Your task to perform on an android device: toggle wifi Image 0: 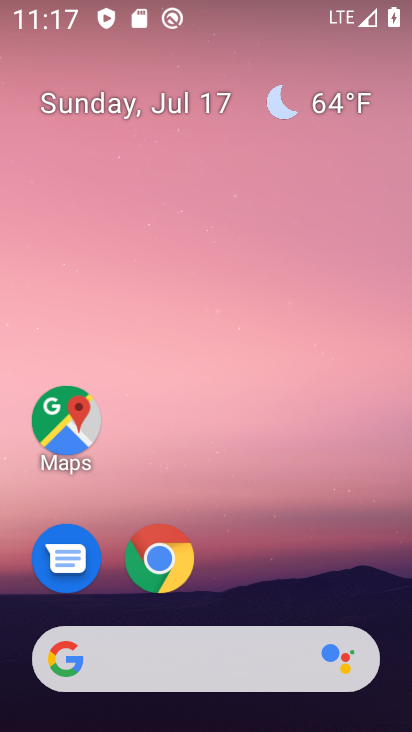
Step 0: drag from (357, 503) to (357, 88)
Your task to perform on an android device: toggle wifi Image 1: 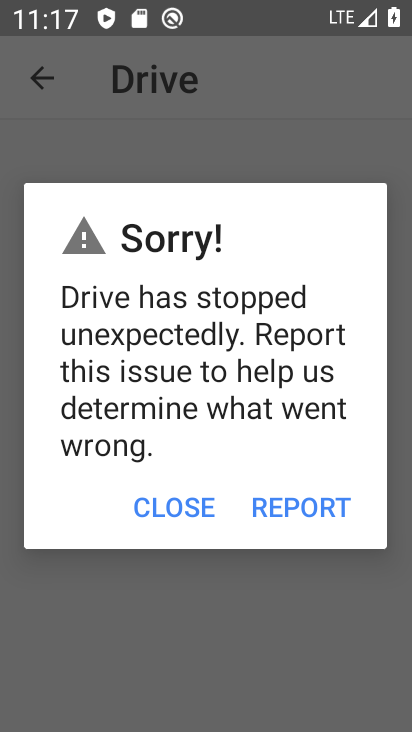
Step 1: press home button
Your task to perform on an android device: toggle wifi Image 2: 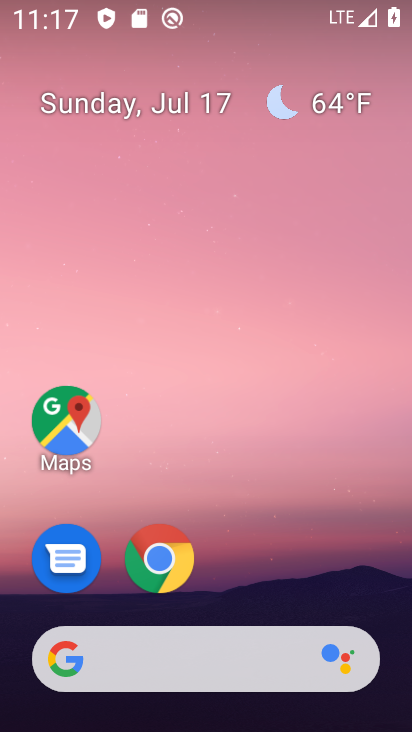
Step 2: drag from (344, 549) to (337, 50)
Your task to perform on an android device: toggle wifi Image 3: 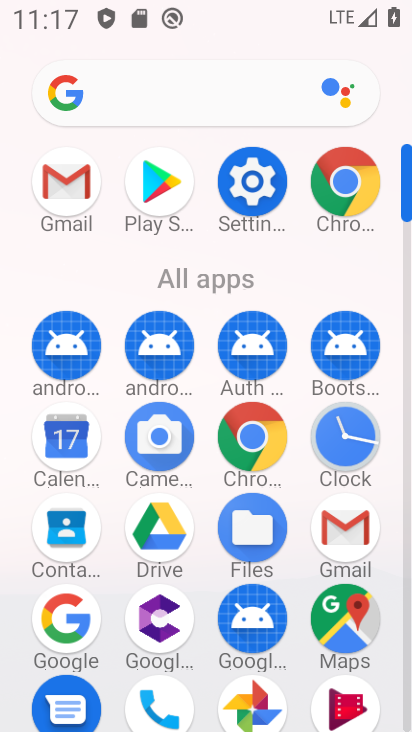
Step 3: click (258, 183)
Your task to perform on an android device: toggle wifi Image 4: 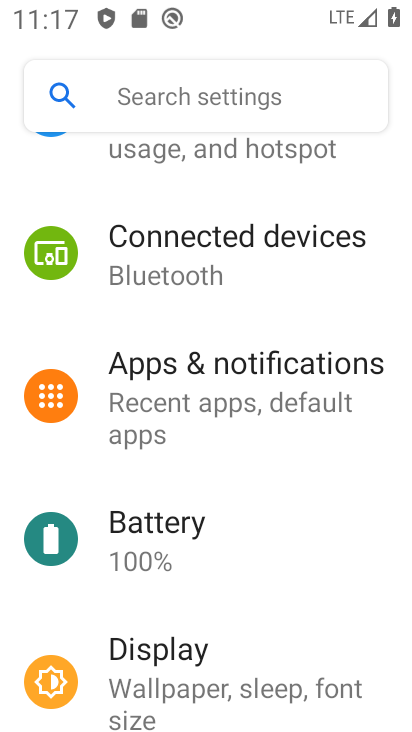
Step 4: drag from (369, 204) to (366, 272)
Your task to perform on an android device: toggle wifi Image 5: 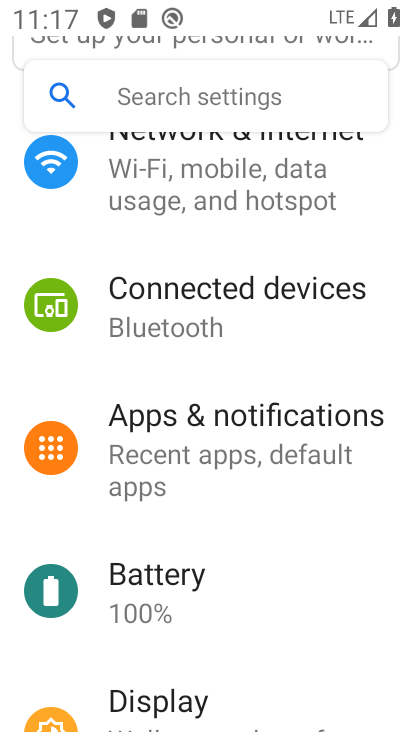
Step 5: drag from (371, 212) to (374, 307)
Your task to perform on an android device: toggle wifi Image 6: 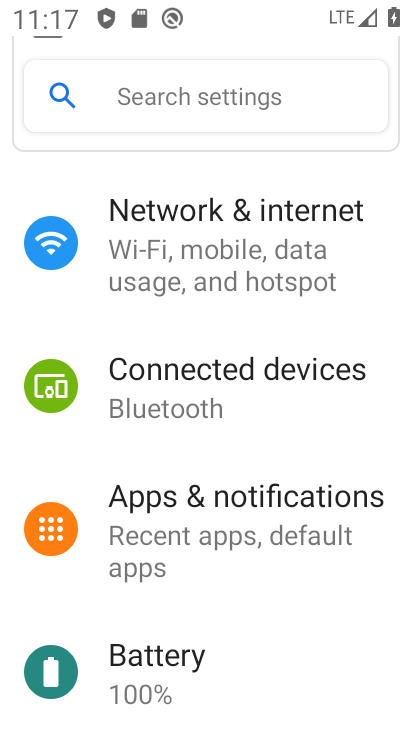
Step 6: drag from (380, 237) to (376, 348)
Your task to perform on an android device: toggle wifi Image 7: 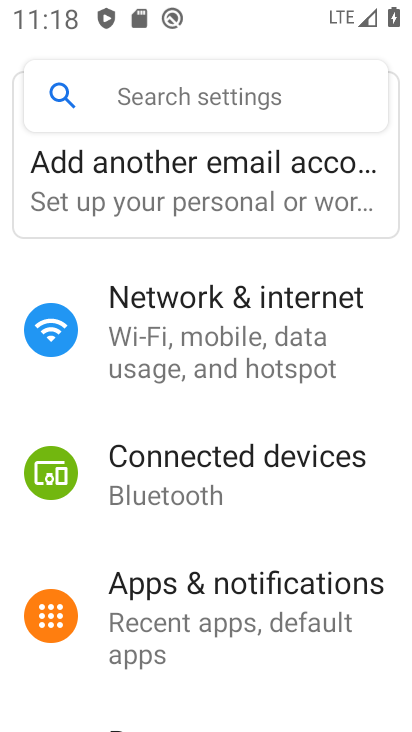
Step 7: drag from (378, 265) to (376, 412)
Your task to perform on an android device: toggle wifi Image 8: 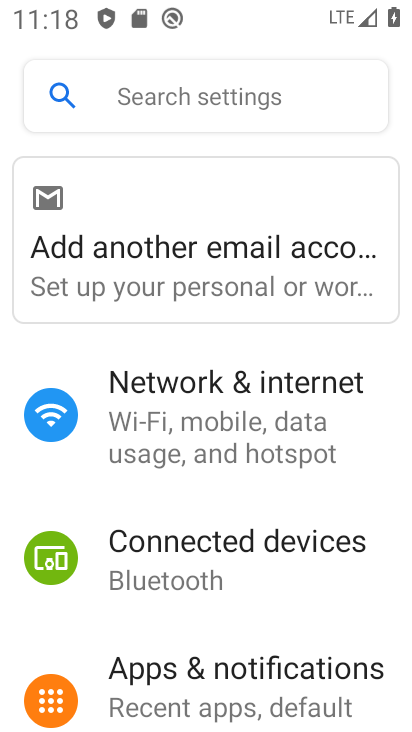
Step 8: click (321, 412)
Your task to perform on an android device: toggle wifi Image 9: 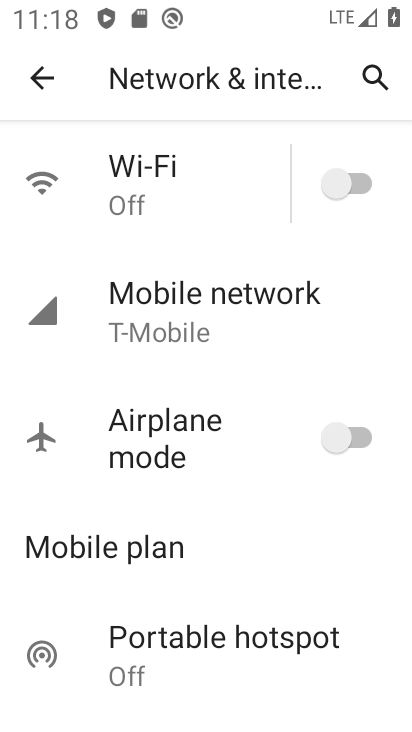
Step 9: click (320, 174)
Your task to perform on an android device: toggle wifi Image 10: 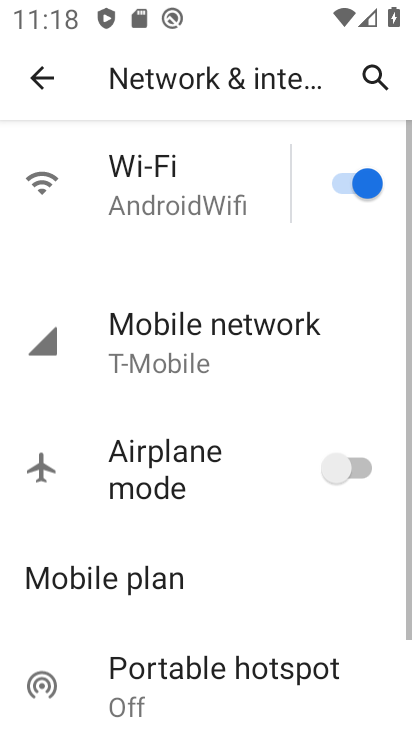
Step 10: task complete